Your task to perform on an android device: turn off priority inbox in the gmail app Image 0: 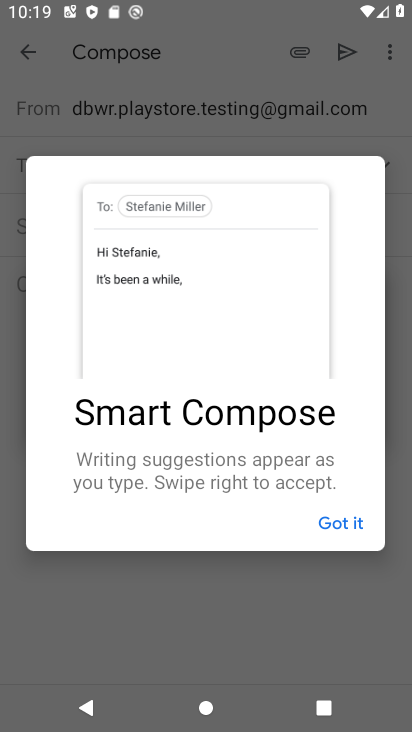
Step 0: press home button
Your task to perform on an android device: turn off priority inbox in the gmail app Image 1: 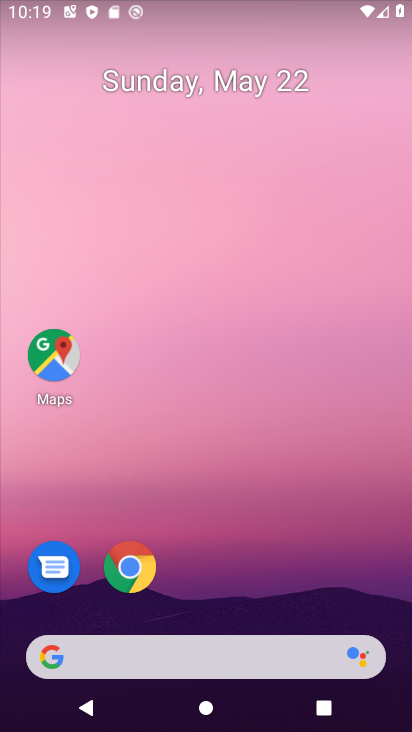
Step 1: drag from (198, 670) to (214, 69)
Your task to perform on an android device: turn off priority inbox in the gmail app Image 2: 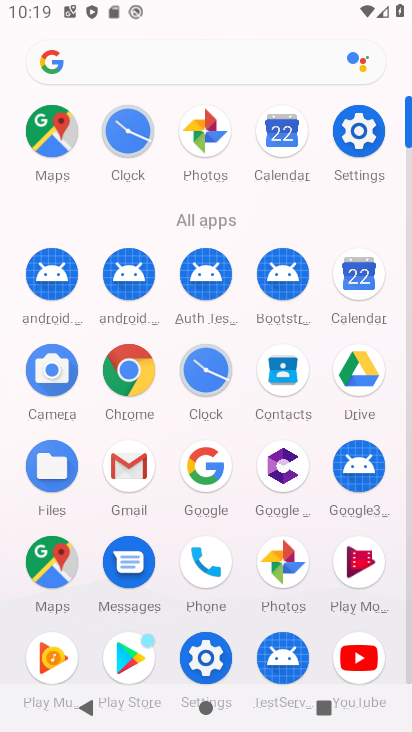
Step 2: click (140, 482)
Your task to perform on an android device: turn off priority inbox in the gmail app Image 3: 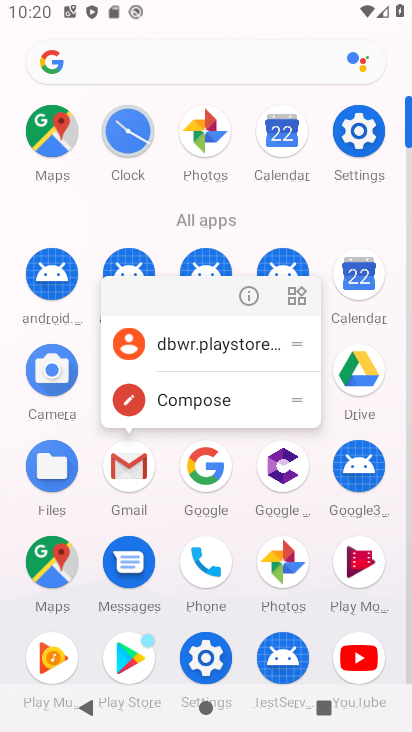
Step 3: click (118, 477)
Your task to perform on an android device: turn off priority inbox in the gmail app Image 4: 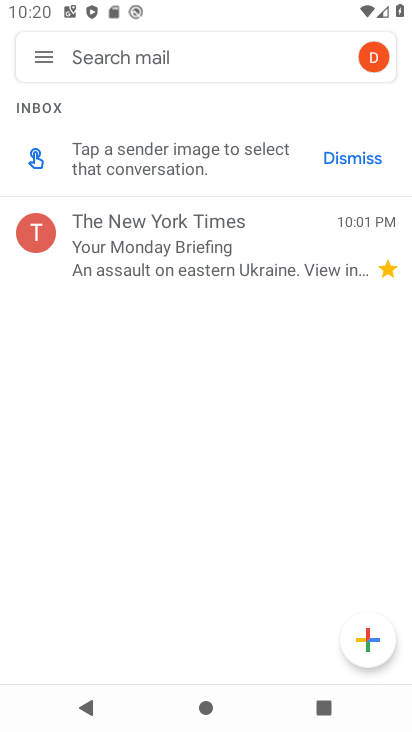
Step 4: click (43, 60)
Your task to perform on an android device: turn off priority inbox in the gmail app Image 5: 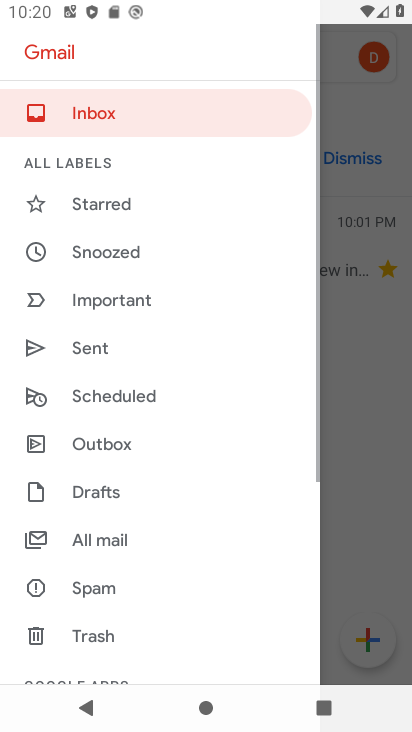
Step 5: drag from (167, 610) to (167, 85)
Your task to perform on an android device: turn off priority inbox in the gmail app Image 6: 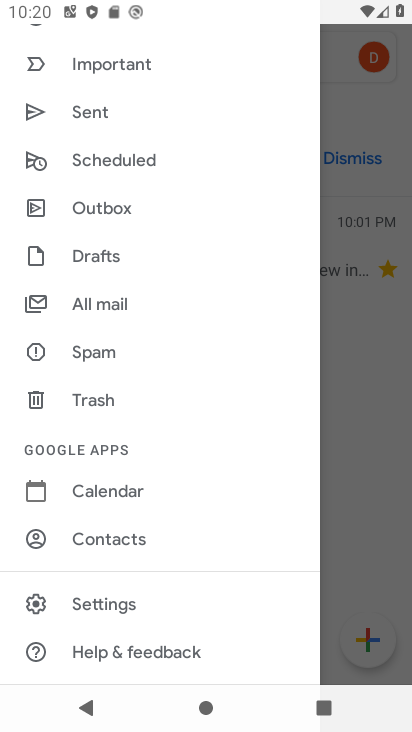
Step 6: click (120, 601)
Your task to perform on an android device: turn off priority inbox in the gmail app Image 7: 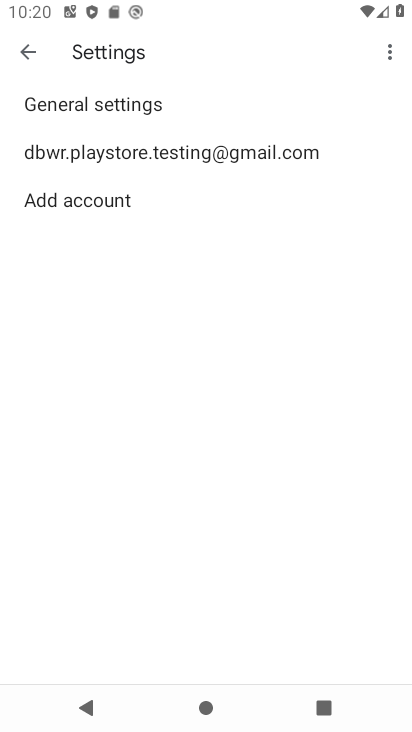
Step 7: click (127, 155)
Your task to perform on an android device: turn off priority inbox in the gmail app Image 8: 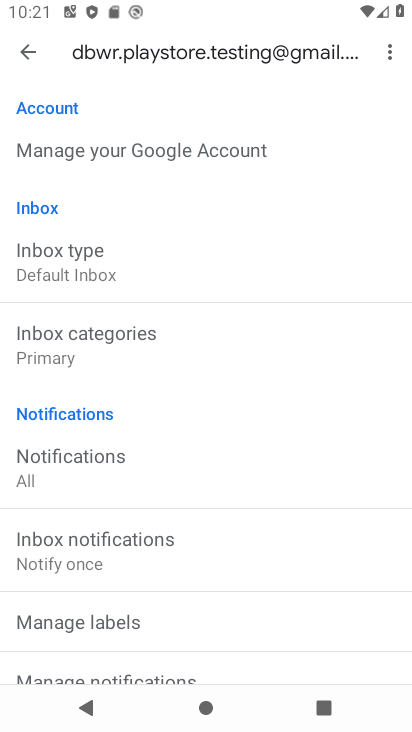
Step 8: click (126, 243)
Your task to perform on an android device: turn off priority inbox in the gmail app Image 9: 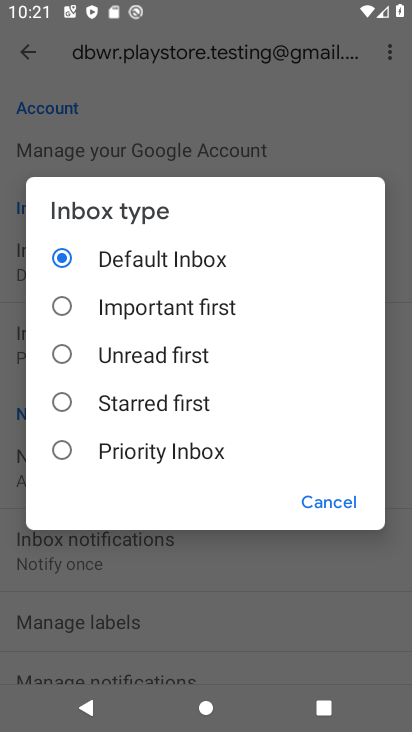
Step 9: click (175, 252)
Your task to perform on an android device: turn off priority inbox in the gmail app Image 10: 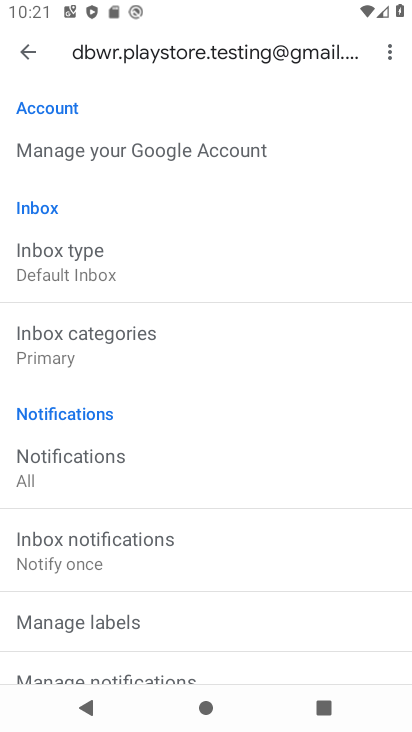
Step 10: task complete